Your task to perform on an android device: check google app version Image 0: 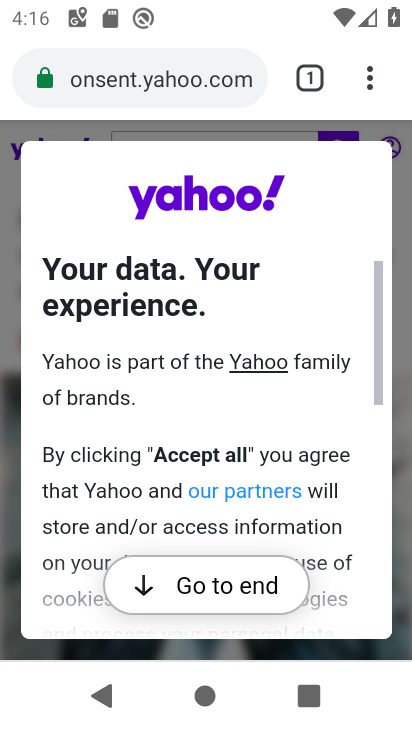
Step 0: press back button
Your task to perform on an android device: check google app version Image 1: 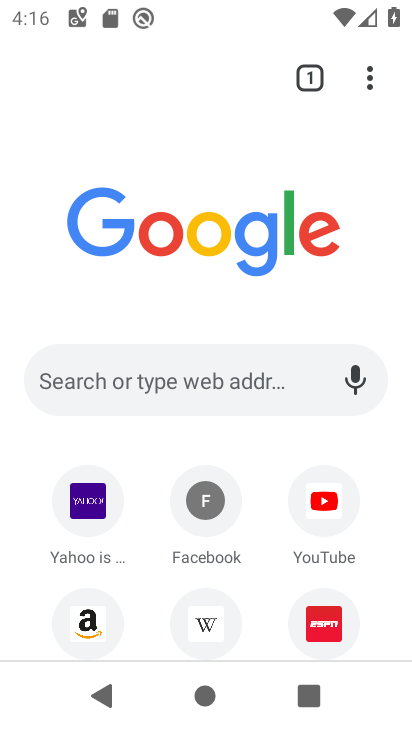
Step 1: press back button
Your task to perform on an android device: check google app version Image 2: 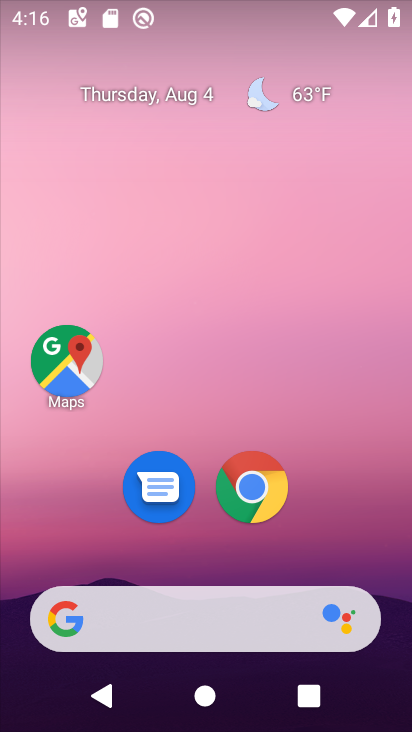
Step 2: drag from (83, 517) to (183, 1)
Your task to perform on an android device: check google app version Image 3: 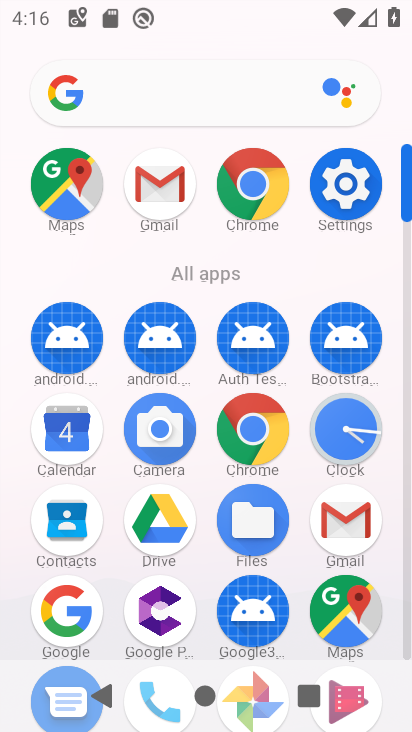
Step 3: click (83, 609)
Your task to perform on an android device: check google app version Image 4: 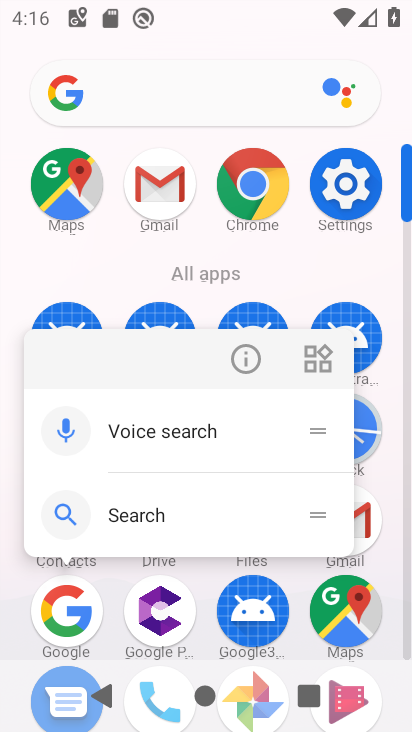
Step 4: click (247, 358)
Your task to perform on an android device: check google app version Image 5: 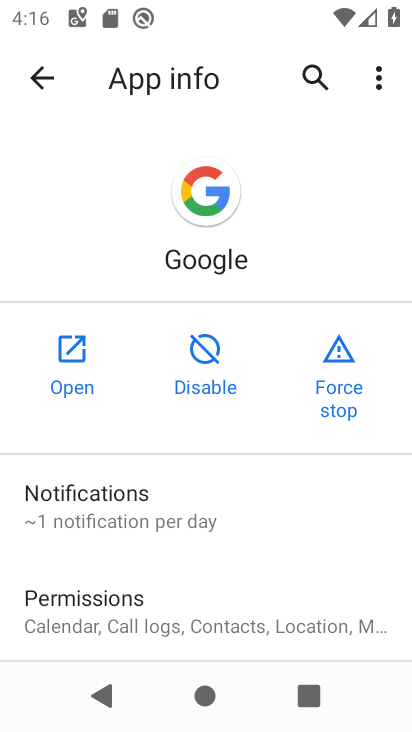
Step 5: drag from (217, 568) to (277, 1)
Your task to perform on an android device: check google app version Image 6: 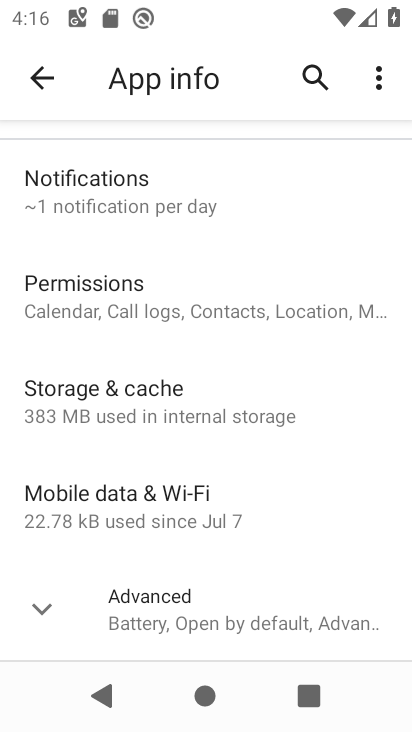
Step 6: drag from (161, 599) to (247, 42)
Your task to perform on an android device: check google app version Image 7: 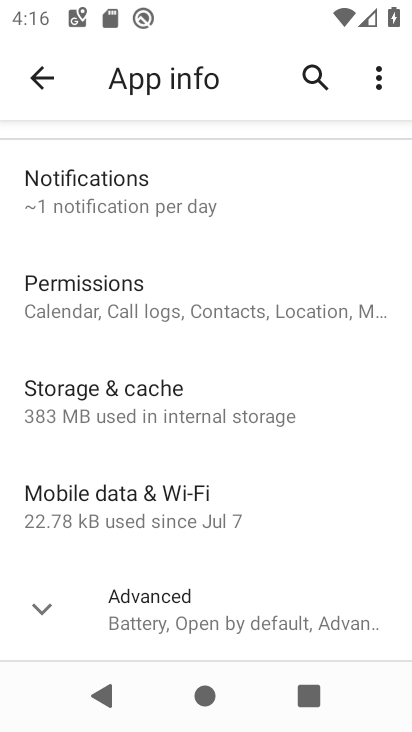
Step 7: drag from (182, 547) to (278, 4)
Your task to perform on an android device: check google app version Image 8: 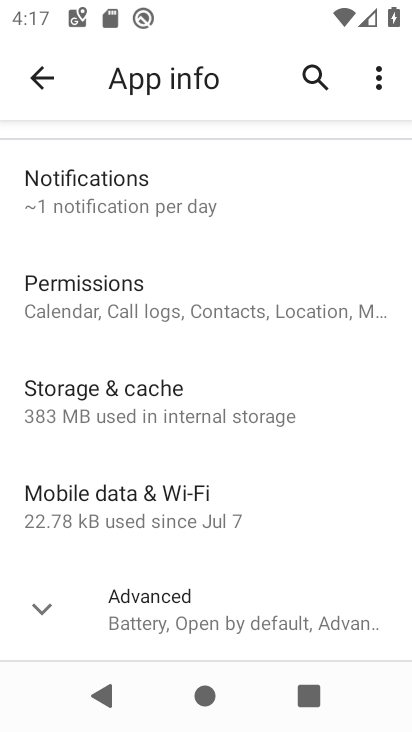
Step 8: click (171, 613)
Your task to perform on an android device: check google app version Image 9: 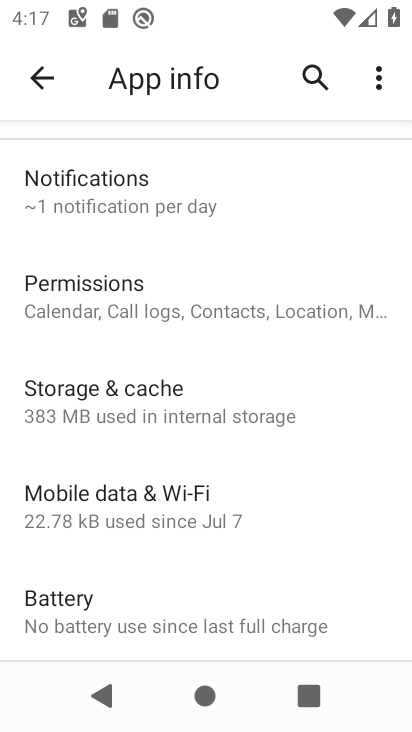
Step 9: task complete